Your task to perform on an android device: Open eBay Image 0: 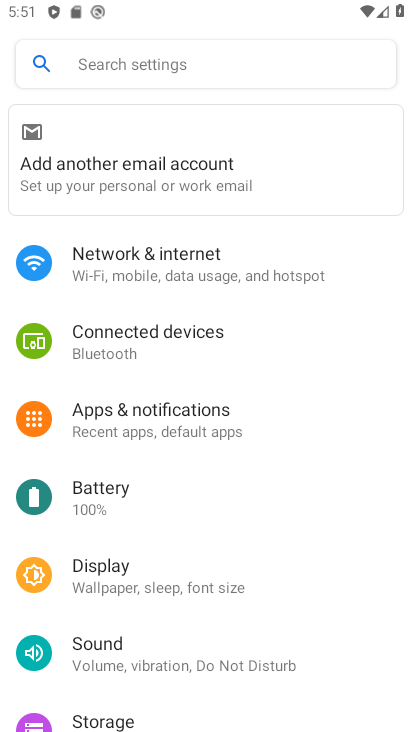
Step 0: press home button
Your task to perform on an android device: Open eBay Image 1: 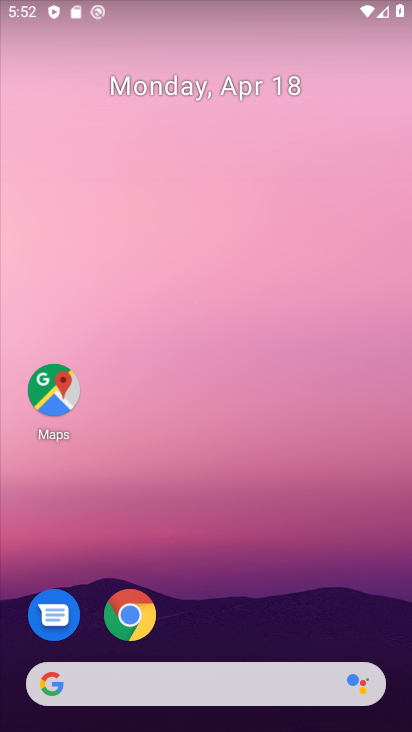
Step 1: drag from (306, 635) to (265, 119)
Your task to perform on an android device: Open eBay Image 2: 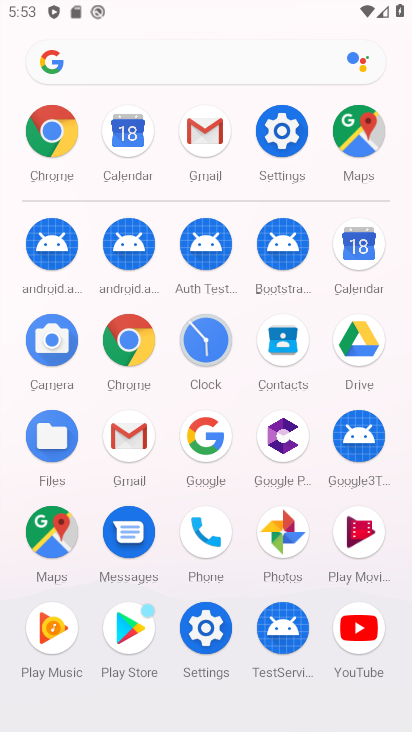
Step 2: click (41, 136)
Your task to perform on an android device: Open eBay Image 3: 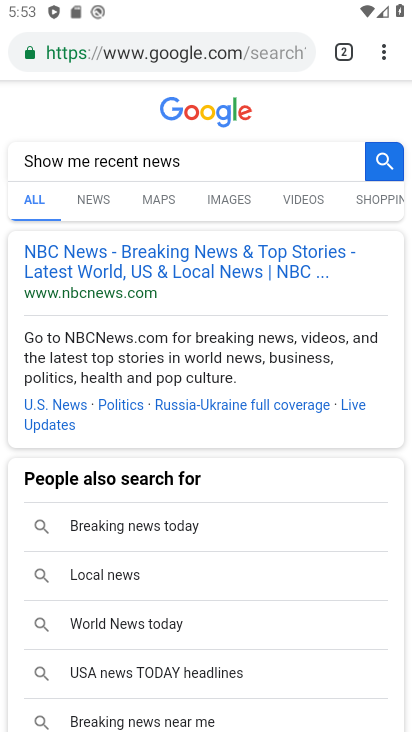
Step 3: click (340, 62)
Your task to perform on an android device: Open eBay Image 4: 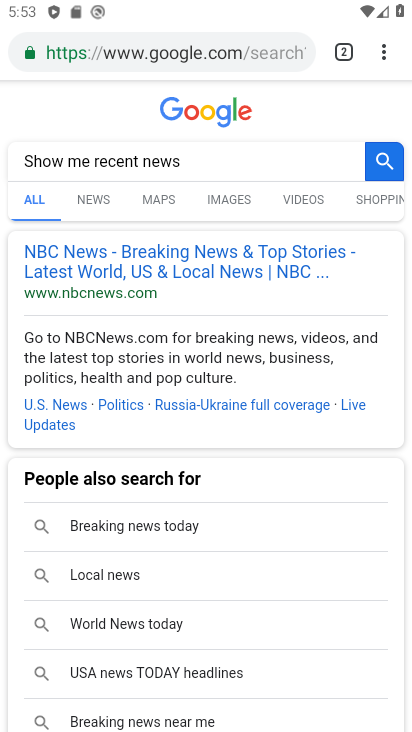
Step 4: click (382, 43)
Your task to perform on an android device: Open eBay Image 5: 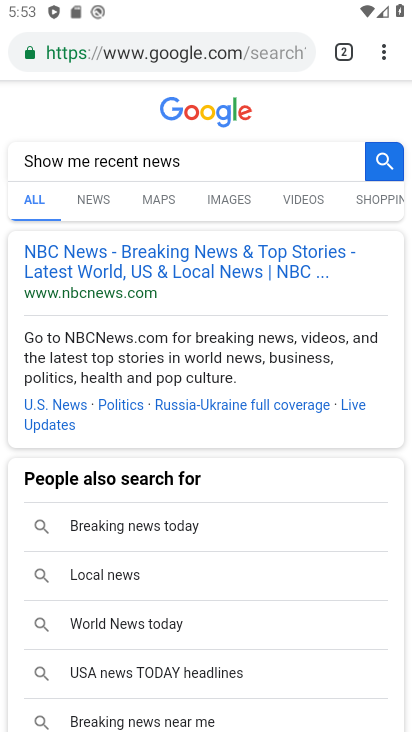
Step 5: drag from (385, 59) to (212, 172)
Your task to perform on an android device: Open eBay Image 6: 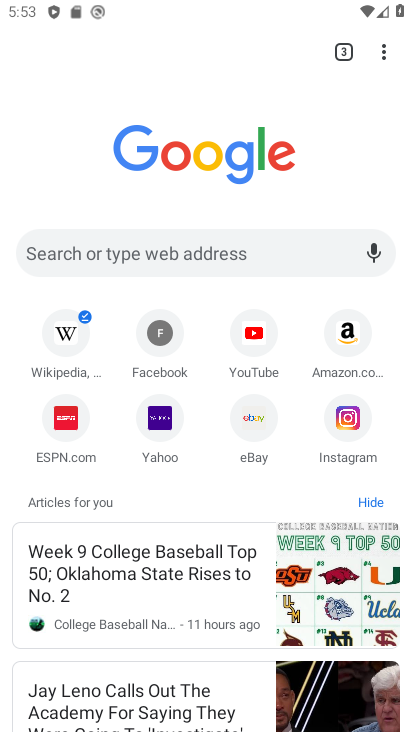
Step 6: click (242, 434)
Your task to perform on an android device: Open eBay Image 7: 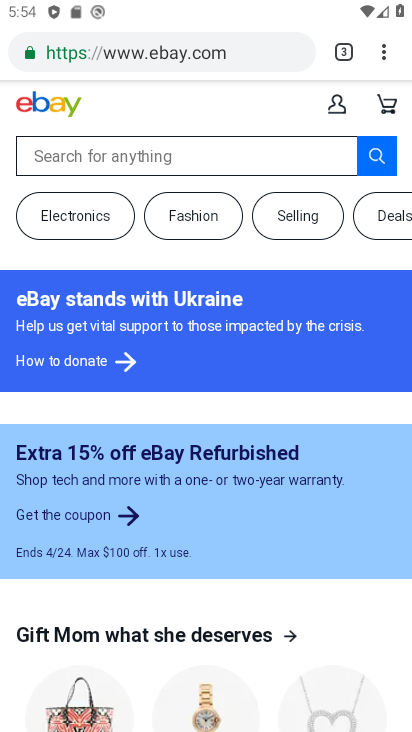
Step 7: task complete